Your task to perform on an android device: turn on priority inbox in the gmail app Image 0: 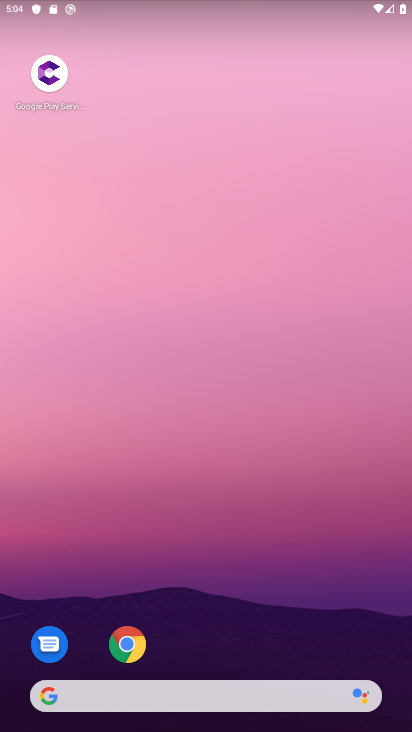
Step 0: drag from (201, 581) to (333, 157)
Your task to perform on an android device: turn on priority inbox in the gmail app Image 1: 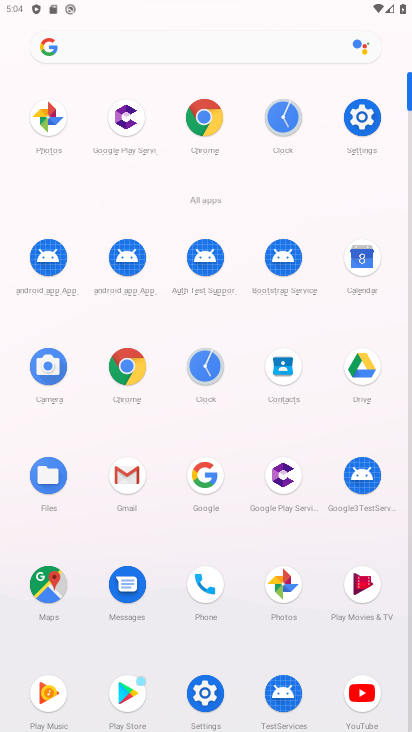
Step 1: click (123, 484)
Your task to perform on an android device: turn on priority inbox in the gmail app Image 2: 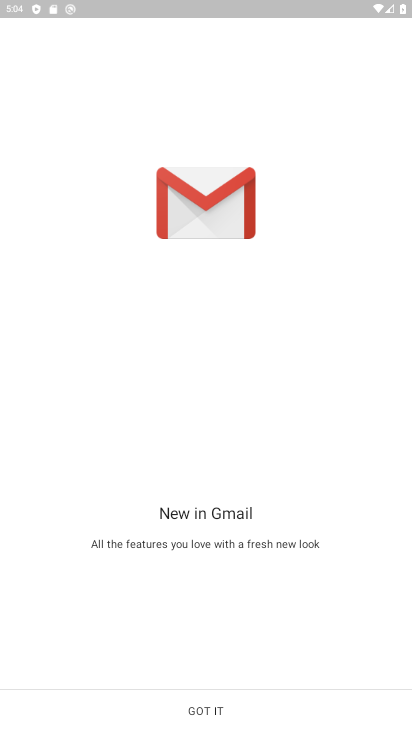
Step 2: click (218, 719)
Your task to perform on an android device: turn on priority inbox in the gmail app Image 3: 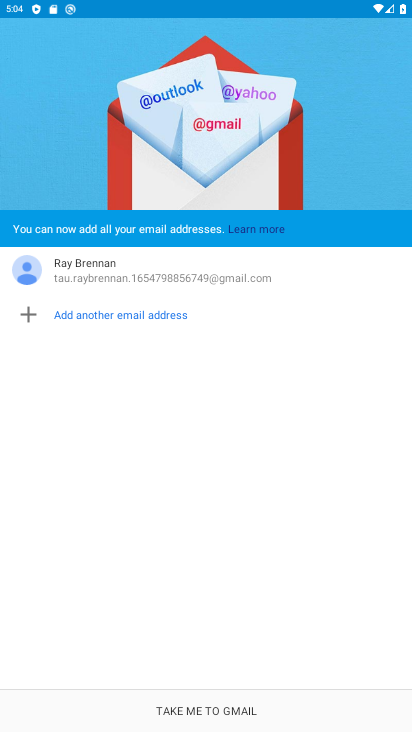
Step 3: click (219, 716)
Your task to perform on an android device: turn on priority inbox in the gmail app Image 4: 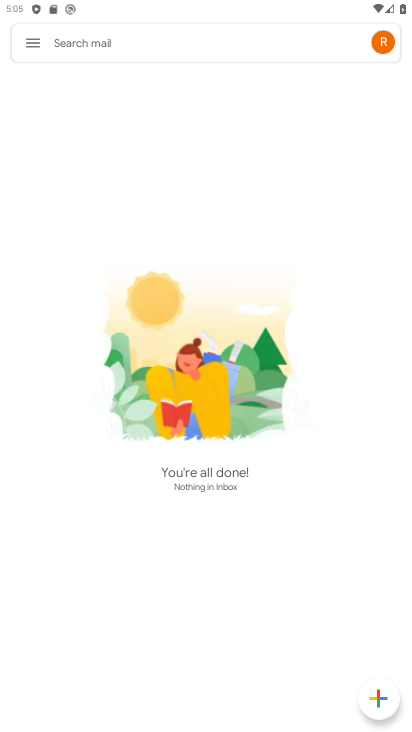
Step 4: click (33, 47)
Your task to perform on an android device: turn on priority inbox in the gmail app Image 5: 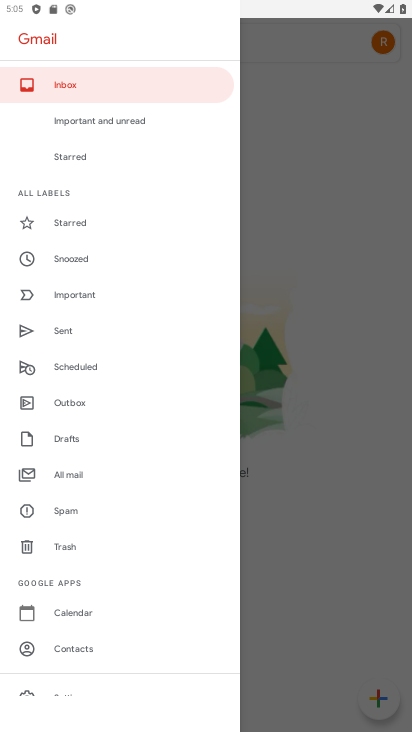
Step 5: drag from (164, 562) to (93, 185)
Your task to perform on an android device: turn on priority inbox in the gmail app Image 6: 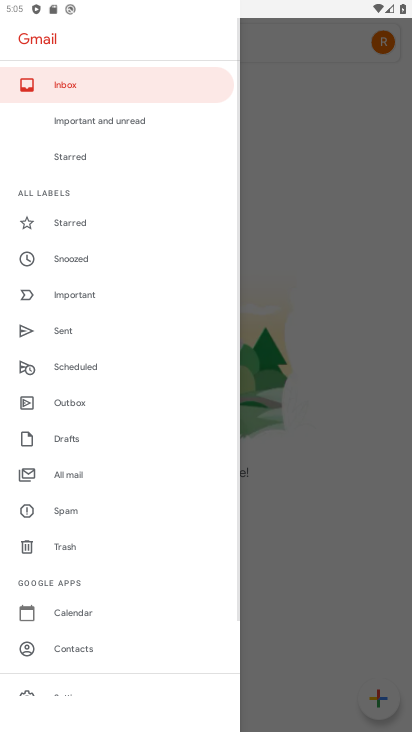
Step 6: drag from (201, 665) to (211, 328)
Your task to perform on an android device: turn on priority inbox in the gmail app Image 7: 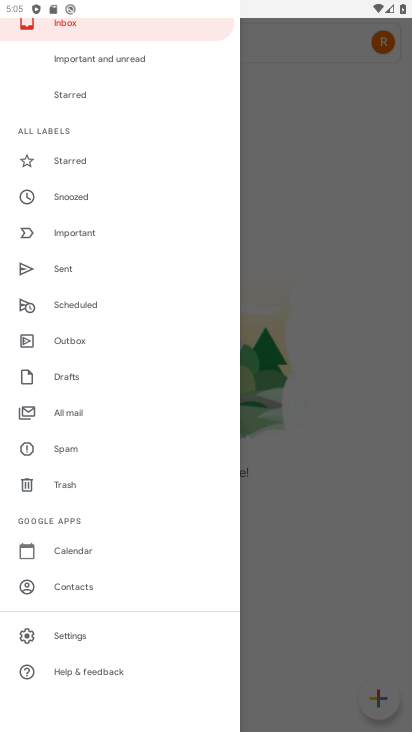
Step 7: click (353, 180)
Your task to perform on an android device: turn on priority inbox in the gmail app Image 8: 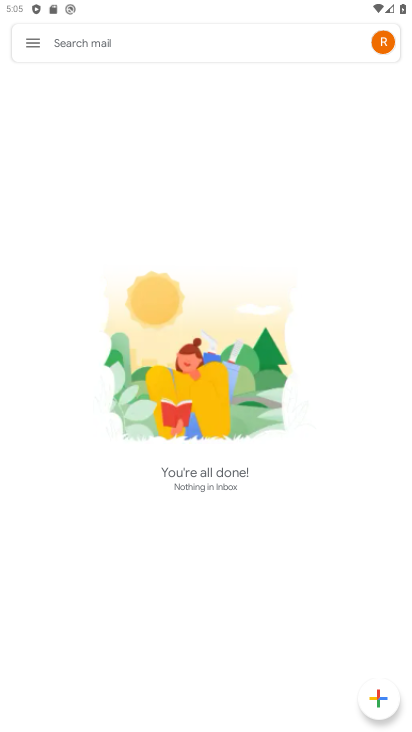
Step 8: click (31, 40)
Your task to perform on an android device: turn on priority inbox in the gmail app Image 9: 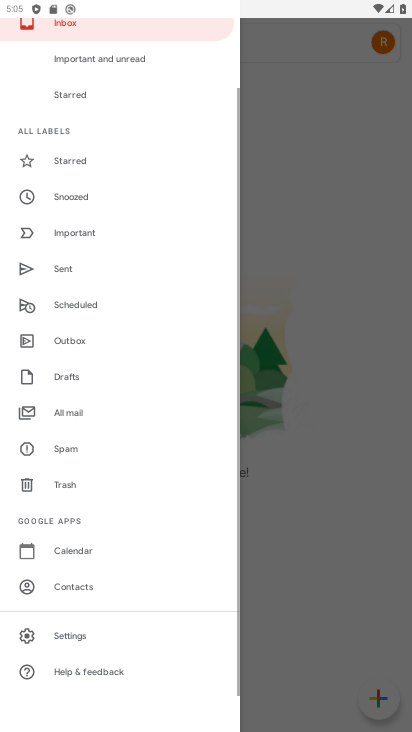
Step 9: drag from (87, 592) to (128, 143)
Your task to perform on an android device: turn on priority inbox in the gmail app Image 10: 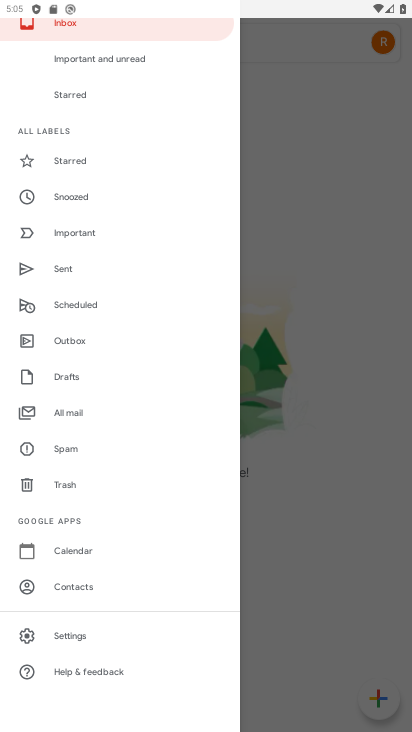
Step 10: click (103, 641)
Your task to perform on an android device: turn on priority inbox in the gmail app Image 11: 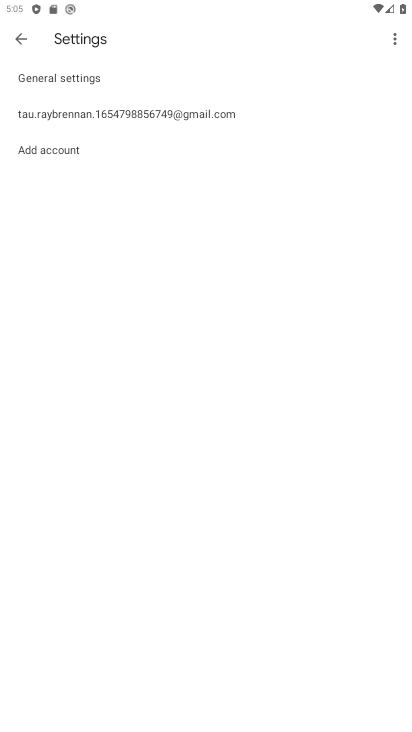
Step 11: click (140, 82)
Your task to perform on an android device: turn on priority inbox in the gmail app Image 12: 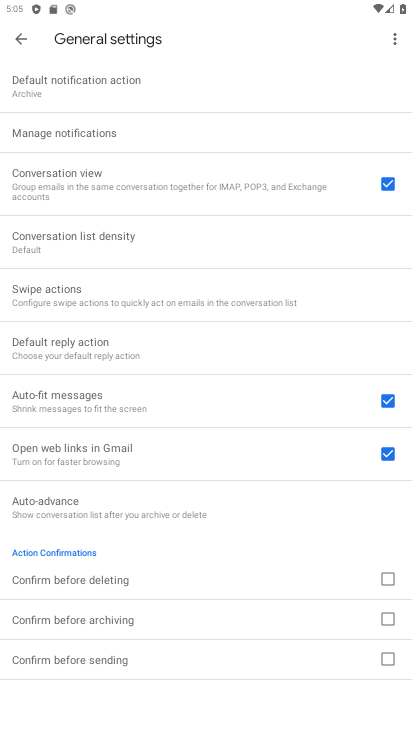
Step 12: click (388, 46)
Your task to perform on an android device: turn on priority inbox in the gmail app Image 13: 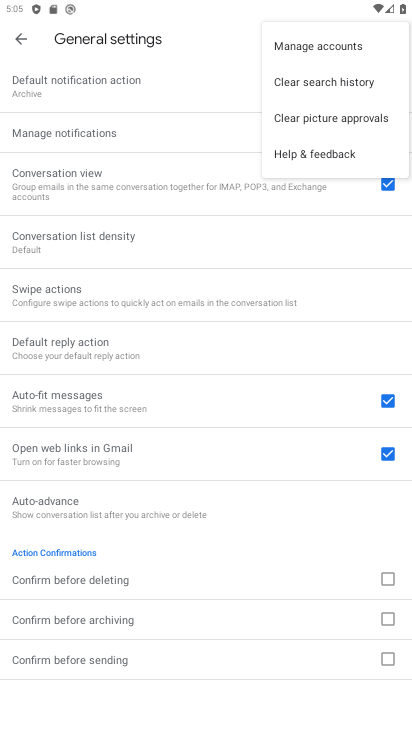
Step 13: click (210, 27)
Your task to perform on an android device: turn on priority inbox in the gmail app Image 14: 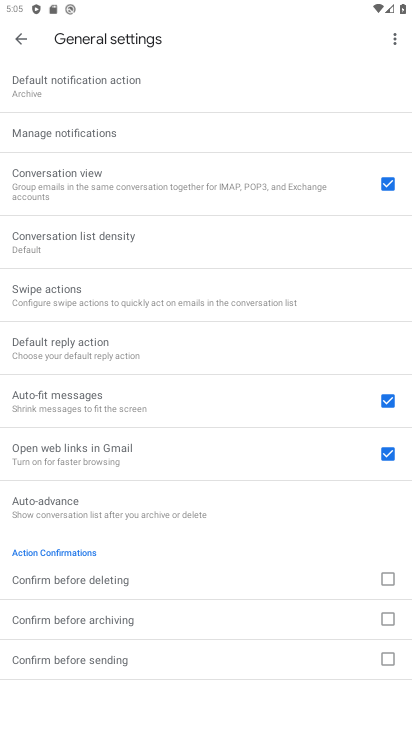
Step 14: drag from (239, 432) to (266, 221)
Your task to perform on an android device: turn on priority inbox in the gmail app Image 15: 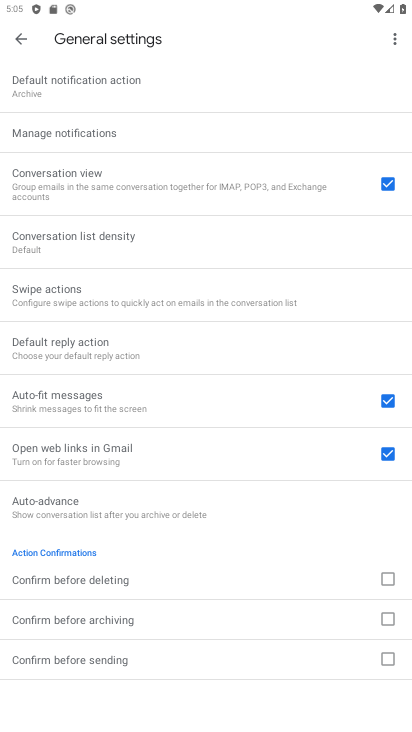
Step 15: drag from (241, 603) to (250, 134)
Your task to perform on an android device: turn on priority inbox in the gmail app Image 16: 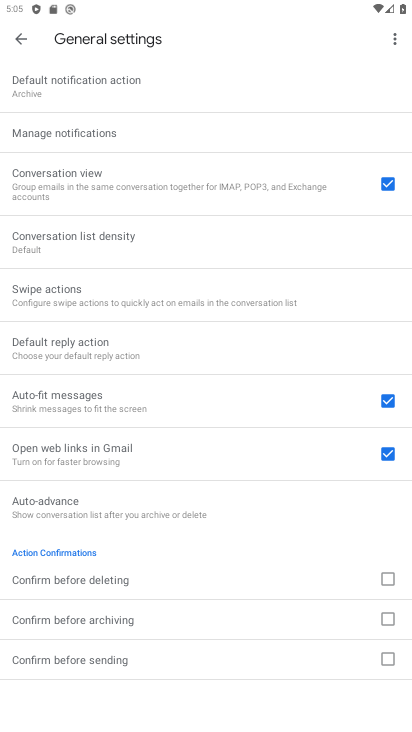
Step 16: drag from (251, 257) to (252, 208)
Your task to perform on an android device: turn on priority inbox in the gmail app Image 17: 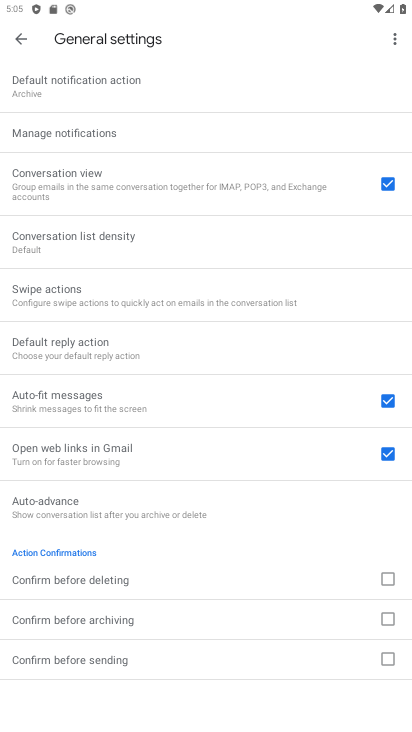
Step 17: drag from (291, 536) to (219, 339)
Your task to perform on an android device: turn on priority inbox in the gmail app Image 18: 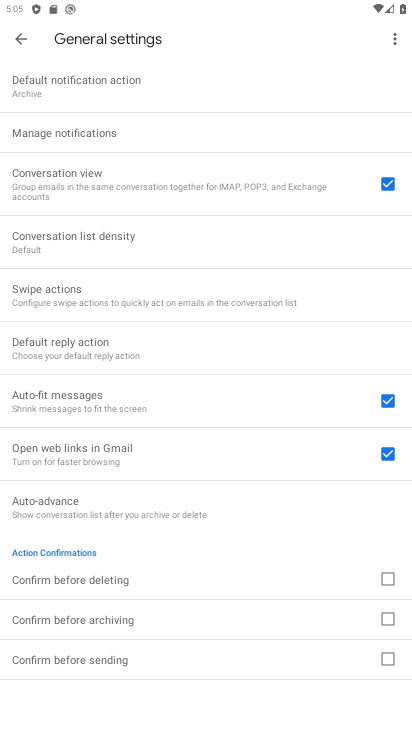
Step 18: click (22, 40)
Your task to perform on an android device: turn on priority inbox in the gmail app Image 19: 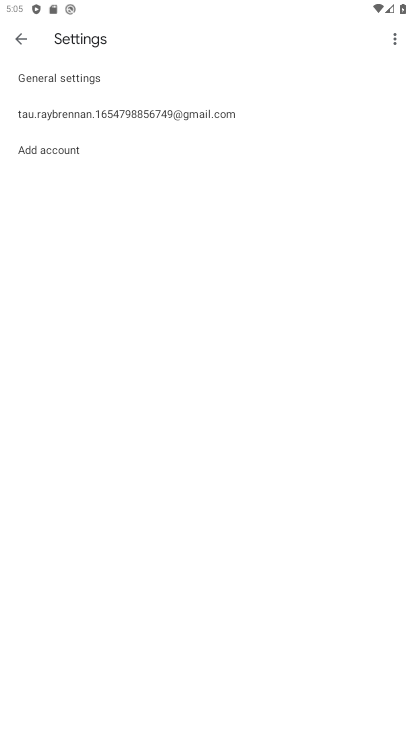
Step 19: click (22, 42)
Your task to perform on an android device: turn on priority inbox in the gmail app Image 20: 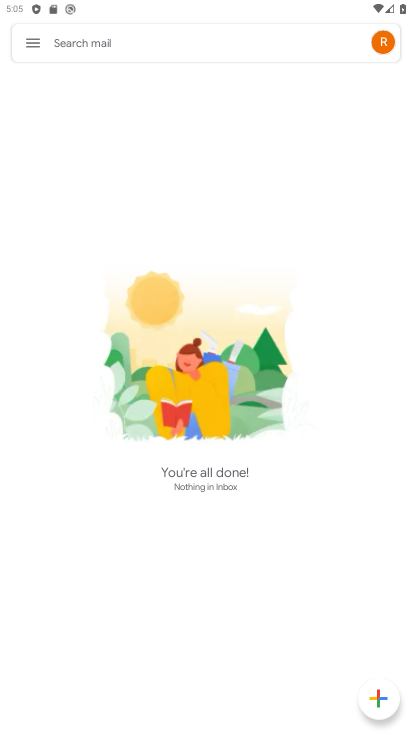
Step 20: click (152, 90)
Your task to perform on an android device: turn on priority inbox in the gmail app Image 21: 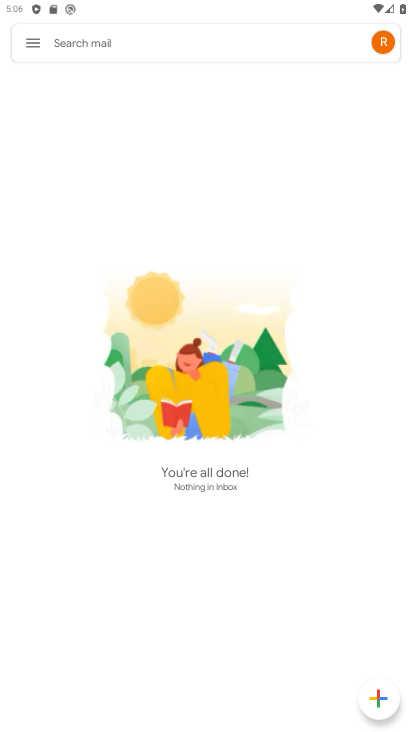
Step 21: click (32, 44)
Your task to perform on an android device: turn on priority inbox in the gmail app Image 22: 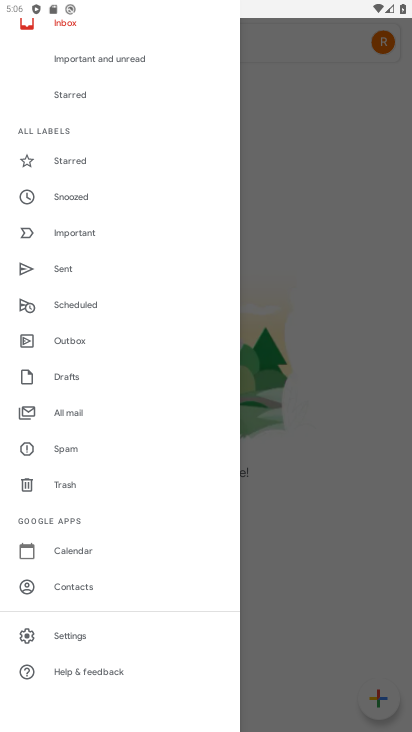
Step 22: click (76, 420)
Your task to perform on an android device: turn on priority inbox in the gmail app Image 23: 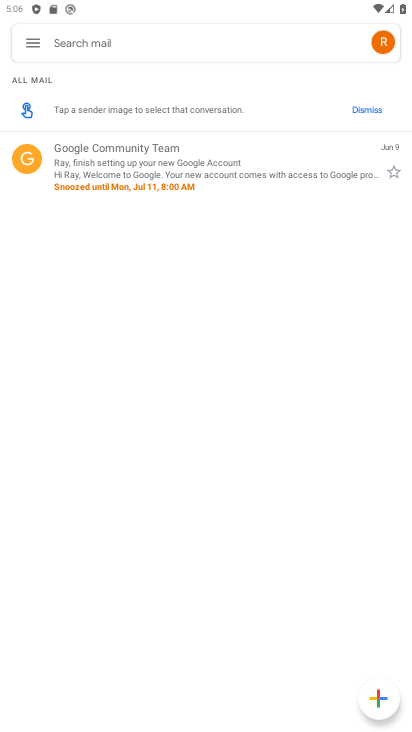
Step 23: click (187, 184)
Your task to perform on an android device: turn on priority inbox in the gmail app Image 24: 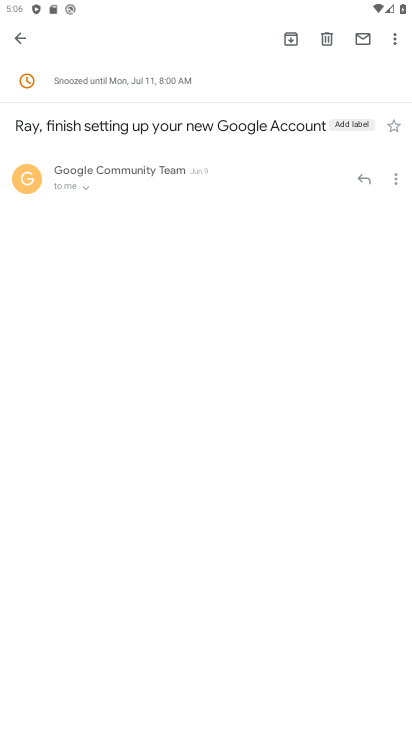
Step 24: click (21, 37)
Your task to perform on an android device: turn on priority inbox in the gmail app Image 25: 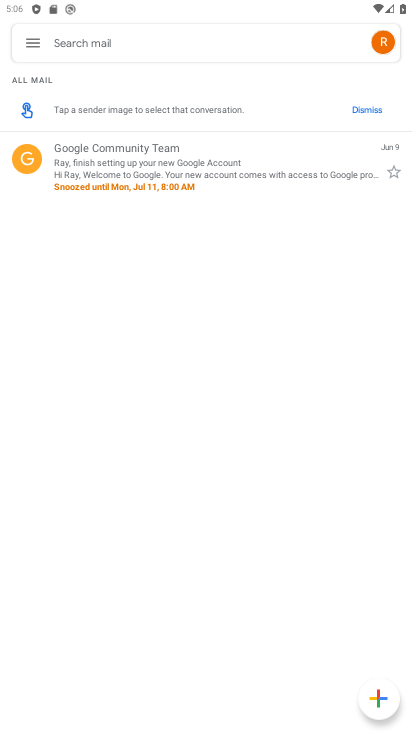
Step 25: click (32, 163)
Your task to perform on an android device: turn on priority inbox in the gmail app Image 26: 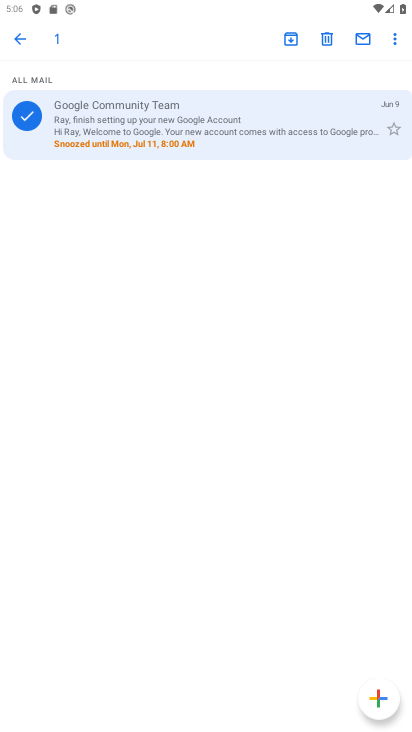
Step 26: click (398, 43)
Your task to perform on an android device: turn on priority inbox in the gmail app Image 27: 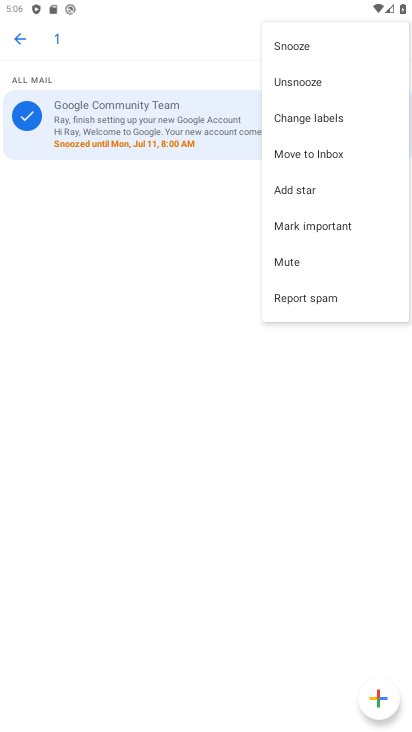
Step 27: click (230, 259)
Your task to perform on an android device: turn on priority inbox in the gmail app Image 28: 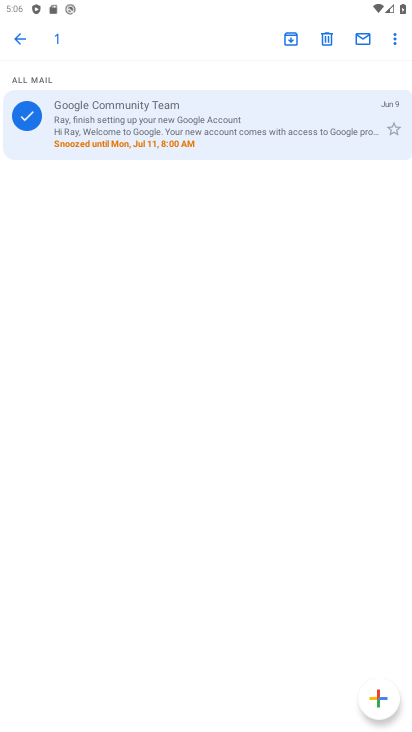
Step 28: task complete